Your task to perform on an android device: Search for "dell alienware" on ebay, select the first entry, and add it to the cart. Image 0: 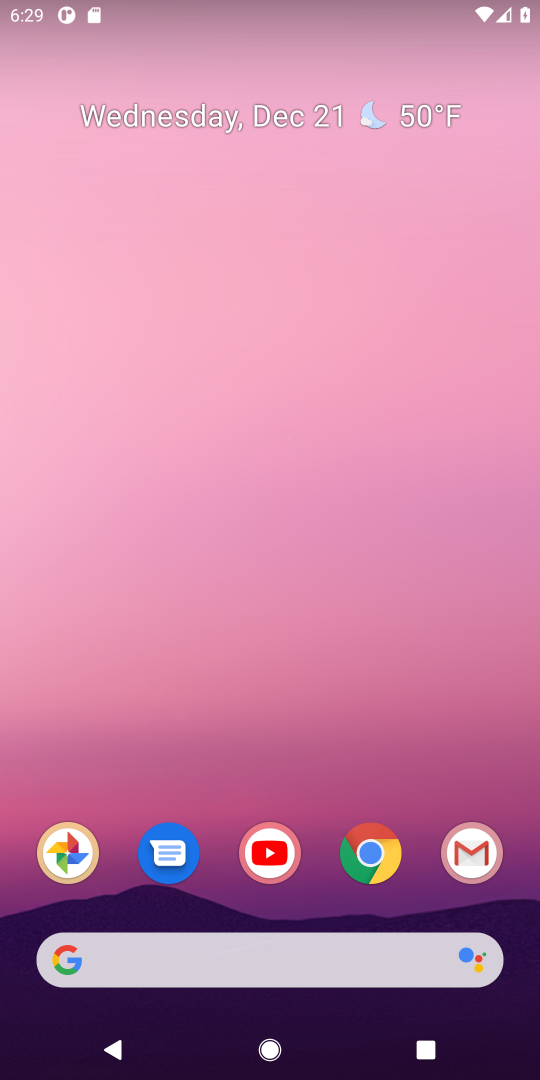
Step 0: click (350, 838)
Your task to perform on an android device: Search for "dell alienware" on ebay, select the first entry, and add it to the cart. Image 1: 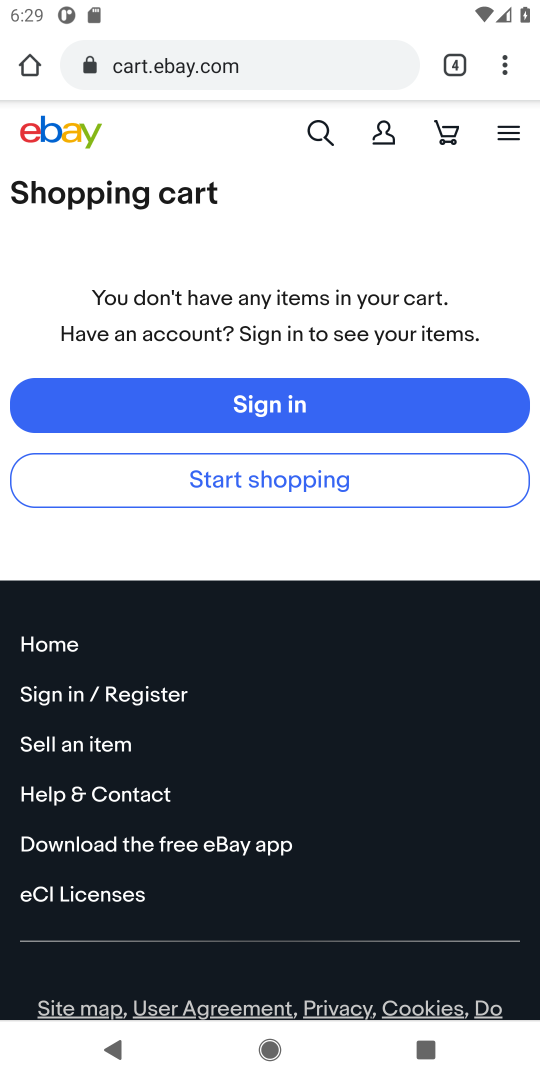
Step 1: click (321, 126)
Your task to perform on an android device: Search for "dell alienware" on ebay, select the first entry, and add it to the cart. Image 2: 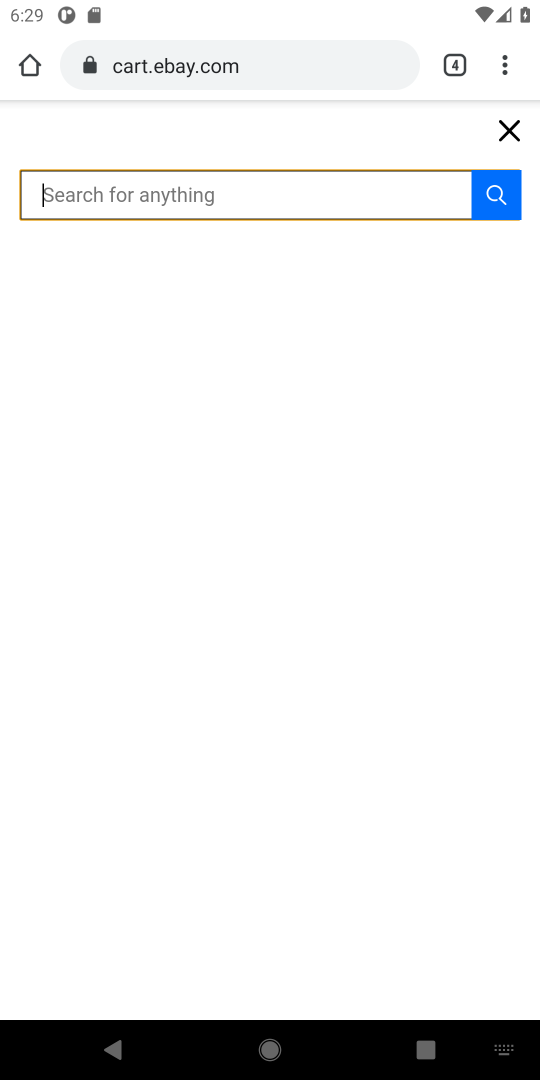
Step 2: type "dell alienware"
Your task to perform on an android device: Search for "dell alienware" on ebay, select the first entry, and add it to the cart. Image 3: 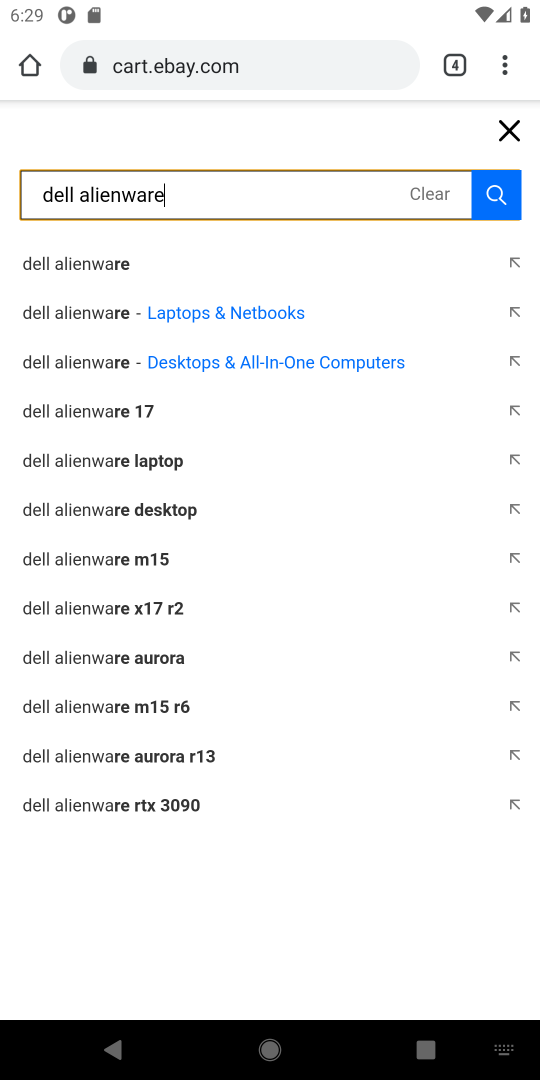
Step 3: click (98, 313)
Your task to perform on an android device: Search for "dell alienware" on ebay, select the first entry, and add it to the cart. Image 4: 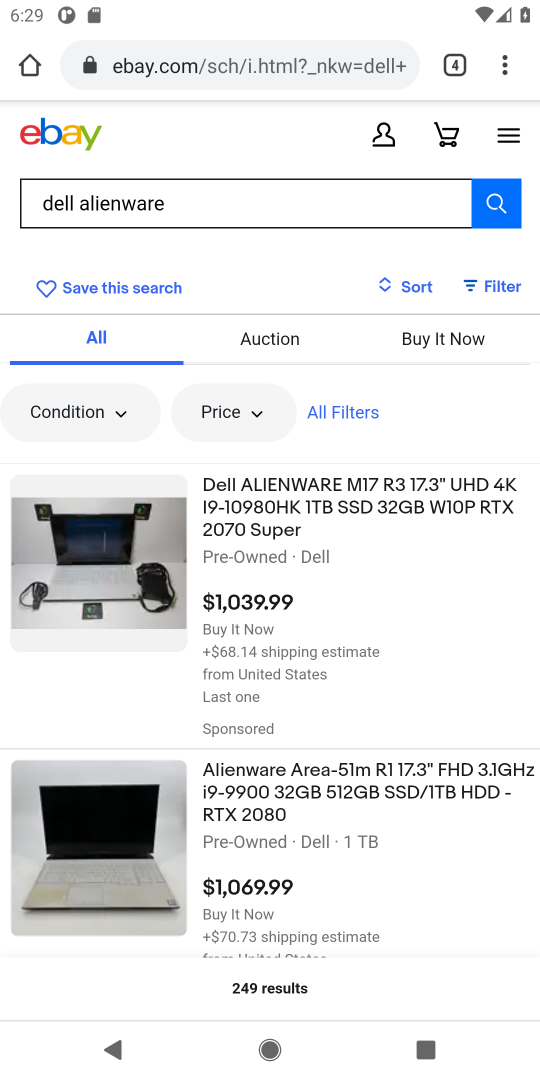
Step 4: click (266, 489)
Your task to perform on an android device: Search for "dell alienware" on ebay, select the first entry, and add it to the cart. Image 5: 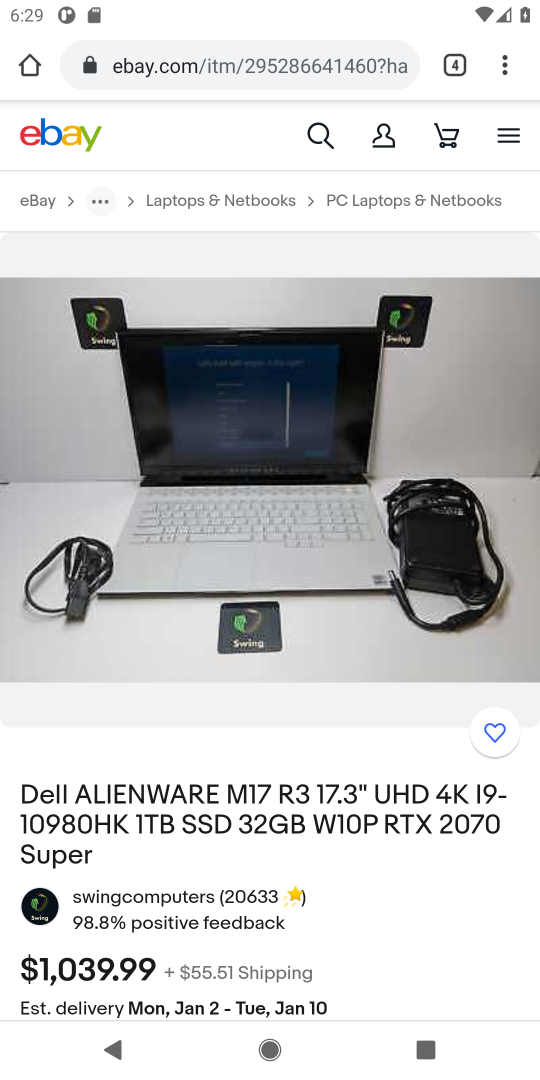
Step 5: drag from (290, 937) to (355, 392)
Your task to perform on an android device: Search for "dell alienware" on ebay, select the first entry, and add it to the cart. Image 6: 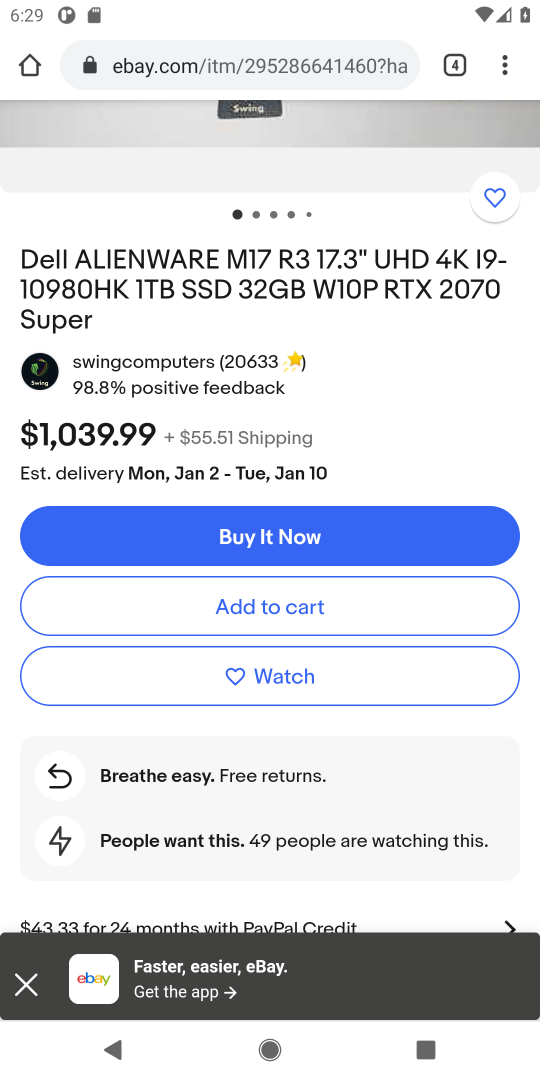
Step 6: click (317, 607)
Your task to perform on an android device: Search for "dell alienware" on ebay, select the first entry, and add it to the cart. Image 7: 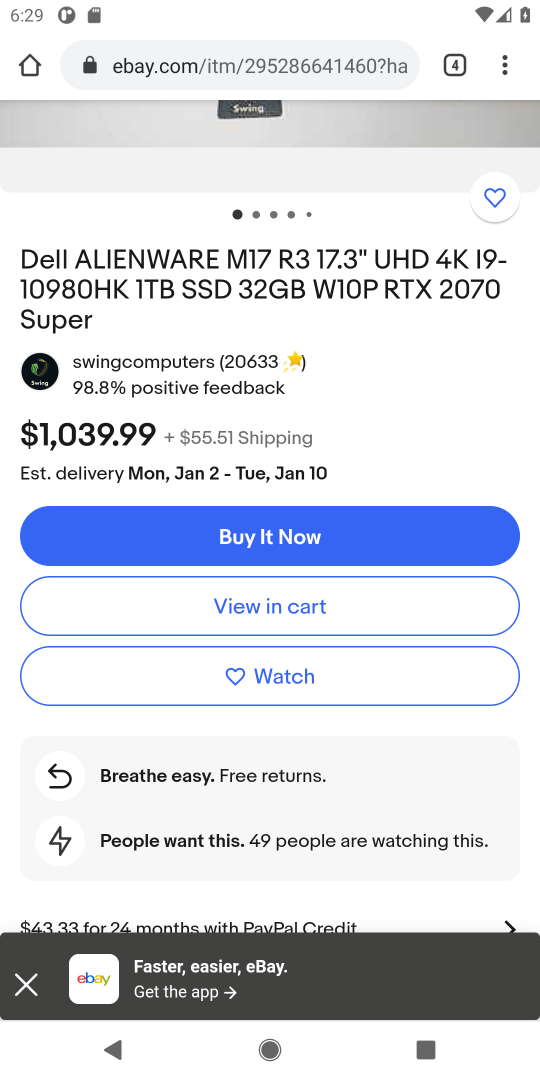
Step 7: task complete